Your task to perform on an android device: turn pop-ups on in chrome Image 0: 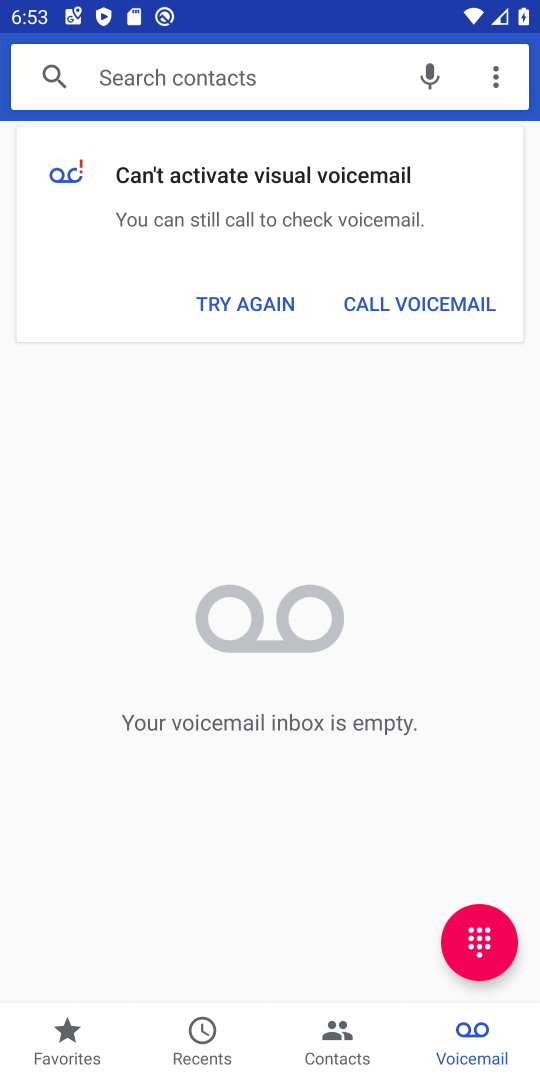
Step 0: press home button
Your task to perform on an android device: turn pop-ups on in chrome Image 1: 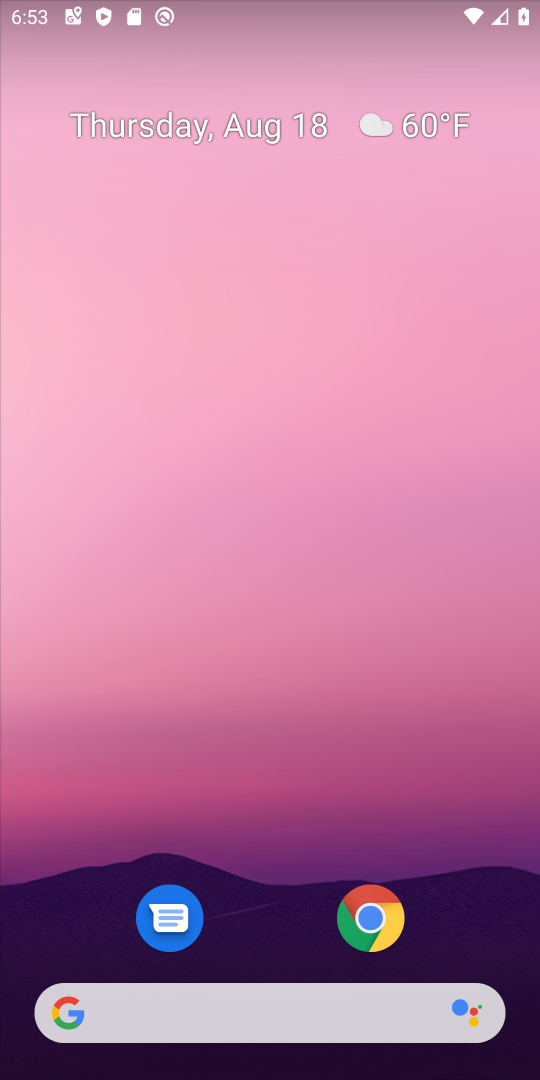
Step 1: click (370, 907)
Your task to perform on an android device: turn pop-ups on in chrome Image 2: 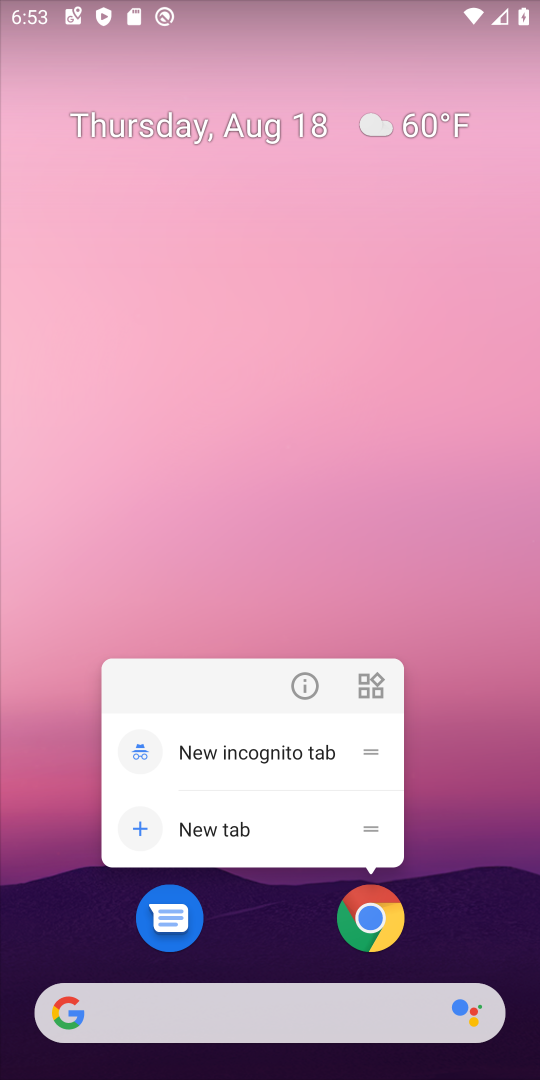
Step 2: click (366, 925)
Your task to perform on an android device: turn pop-ups on in chrome Image 3: 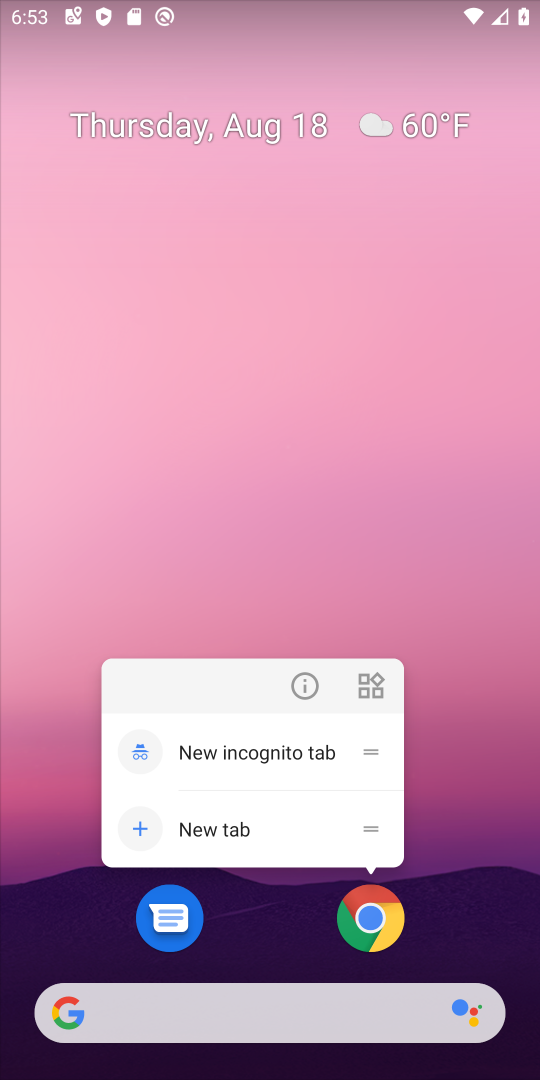
Step 3: click (383, 916)
Your task to perform on an android device: turn pop-ups on in chrome Image 4: 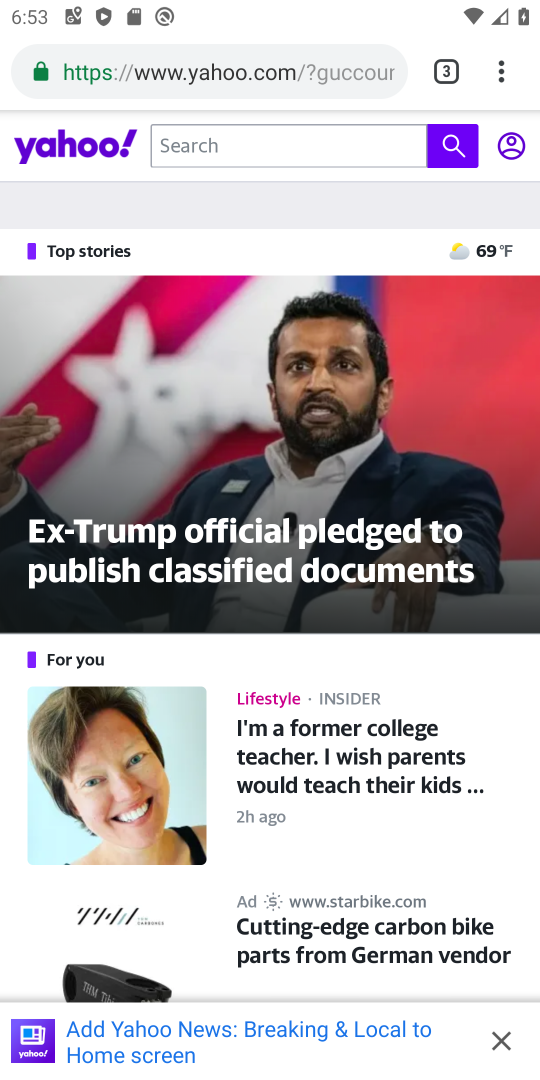
Step 4: drag from (502, 72) to (244, 858)
Your task to perform on an android device: turn pop-ups on in chrome Image 5: 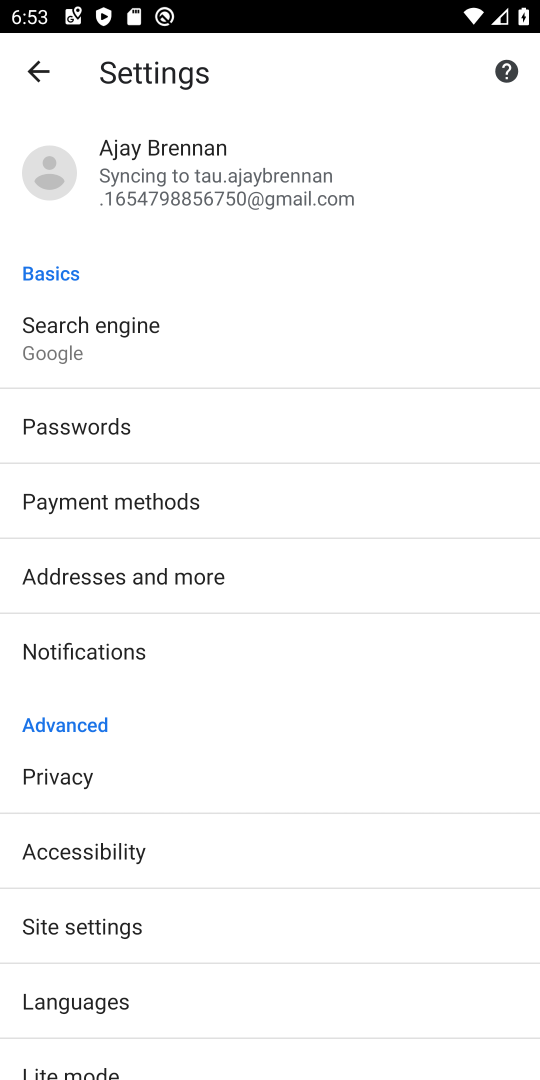
Step 5: click (74, 917)
Your task to perform on an android device: turn pop-ups on in chrome Image 6: 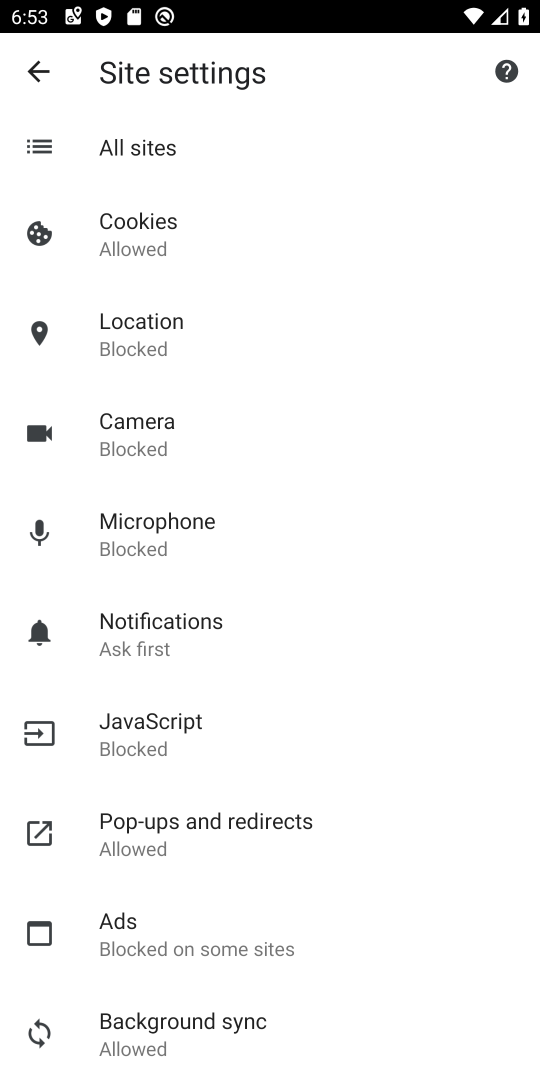
Step 6: click (143, 843)
Your task to perform on an android device: turn pop-ups on in chrome Image 7: 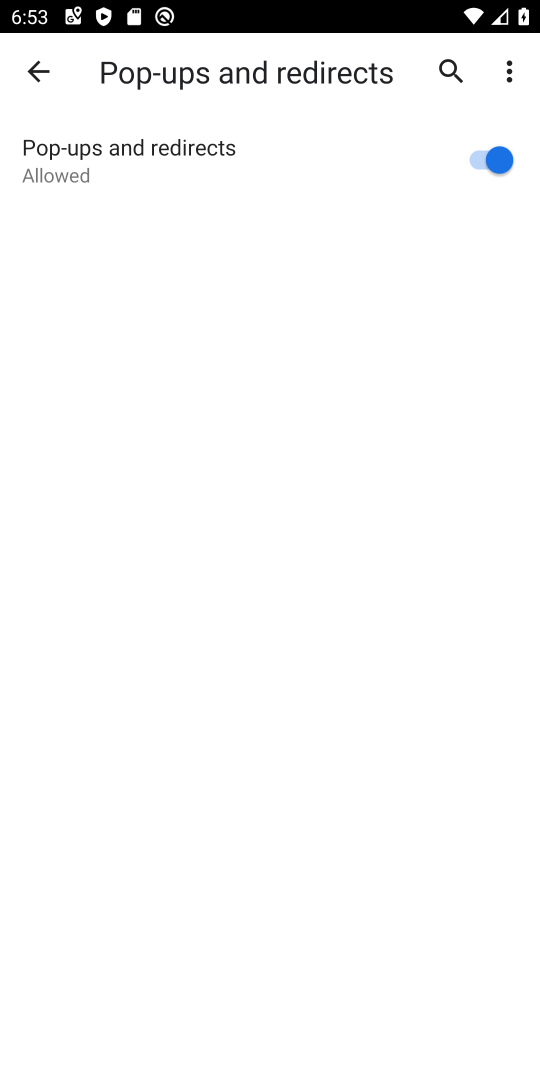
Step 7: task complete